Your task to perform on an android device: turn on translation in the chrome app Image 0: 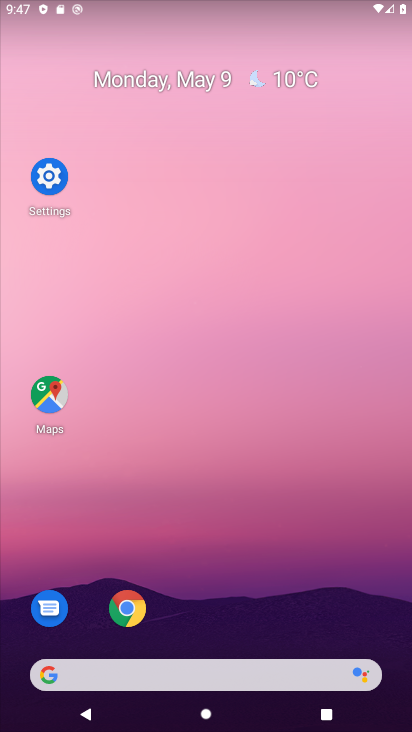
Step 0: click (131, 607)
Your task to perform on an android device: turn on translation in the chrome app Image 1: 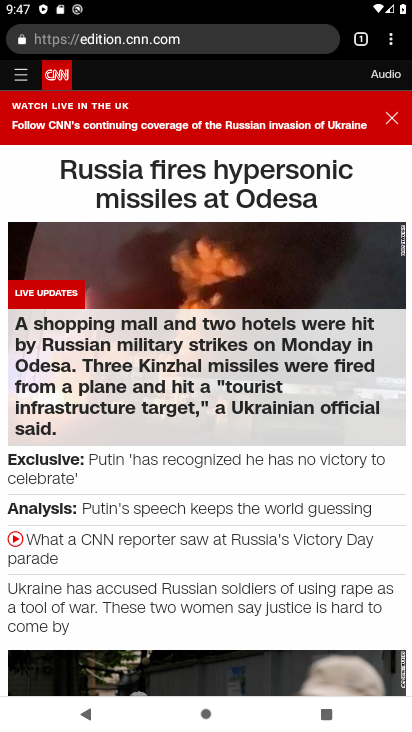
Step 1: click (391, 43)
Your task to perform on an android device: turn on translation in the chrome app Image 2: 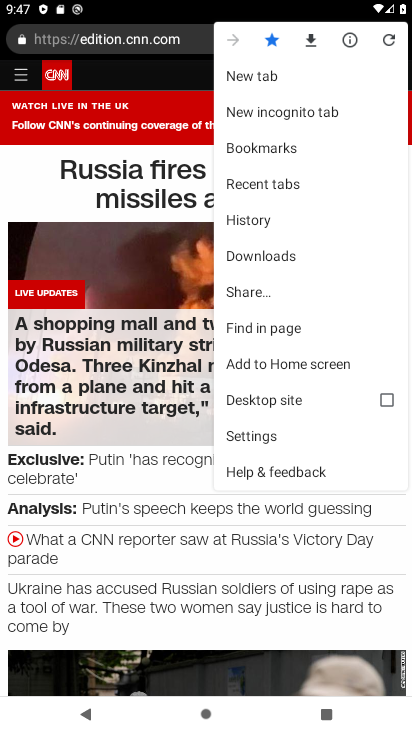
Step 2: click (258, 437)
Your task to perform on an android device: turn on translation in the chrome app Image 3: 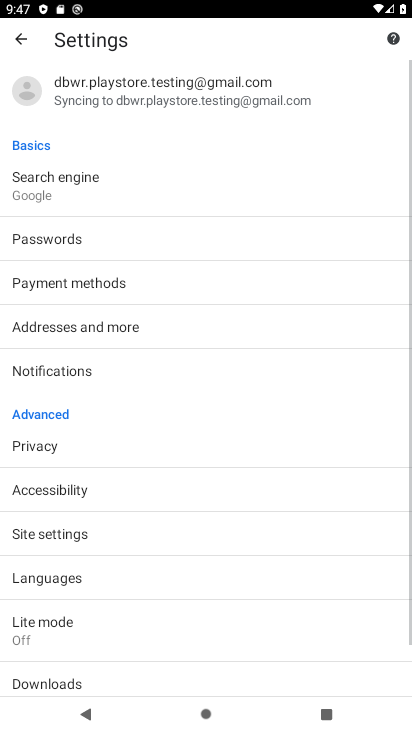
Step 3: drag from (184, 566) to (276, 225)
Your task to perform on an android device: turn on translation in the chrome app Image 4: 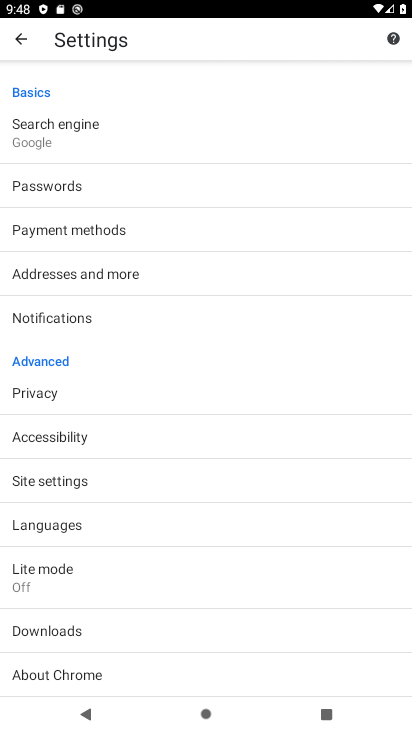
Step 4: click (140, 535)
Your task to perform on an android device: turn on translation in the chrome app Image 5: 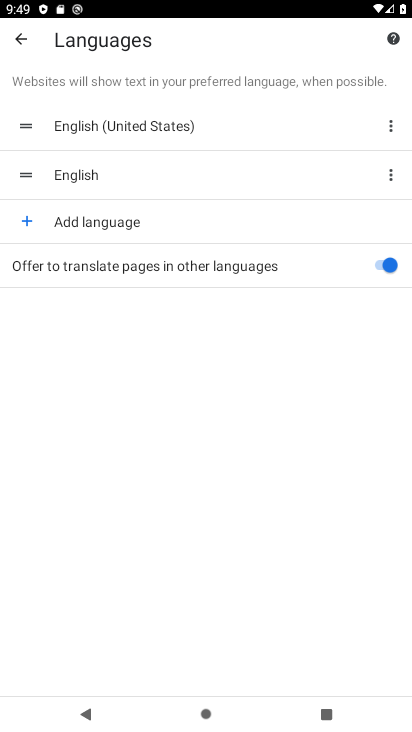
Step 5: task complete